Your task to perform on an android device: Go to wifi settings Image 0: 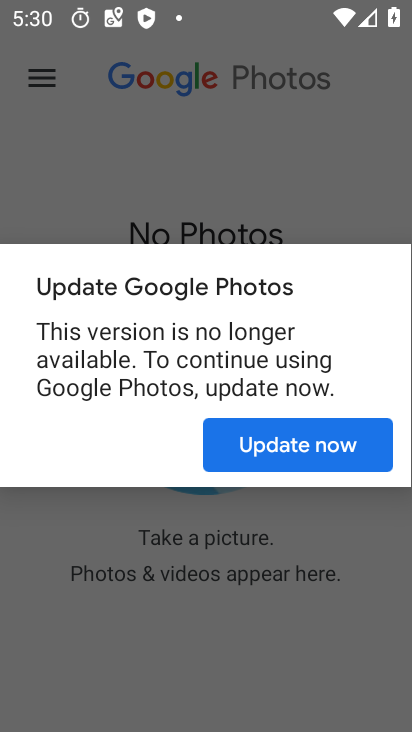
Step 0: press back button
Your task to perform on an android device: Go to wifi settings Image 1: 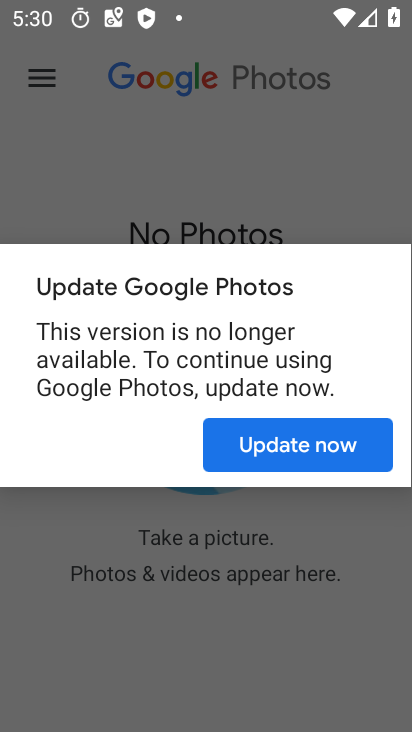
Step 1: press home button
Your task to perform on an android device: Go to wifi settings Image 2: 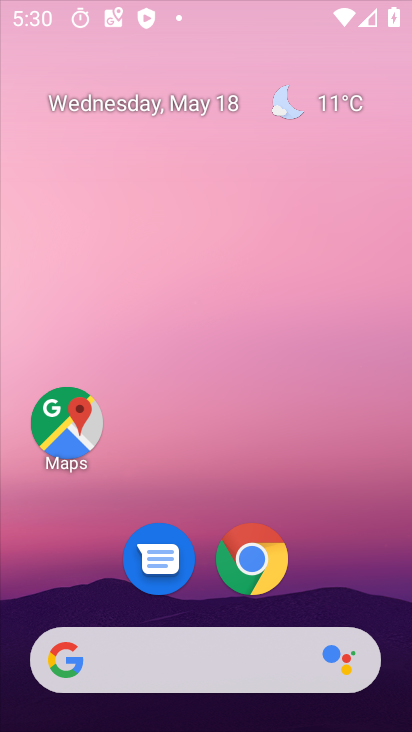
Step 2: drag from (88, 13) to (153, 575)
Your task to perform on an android device: Go to wifi settings Image 3: 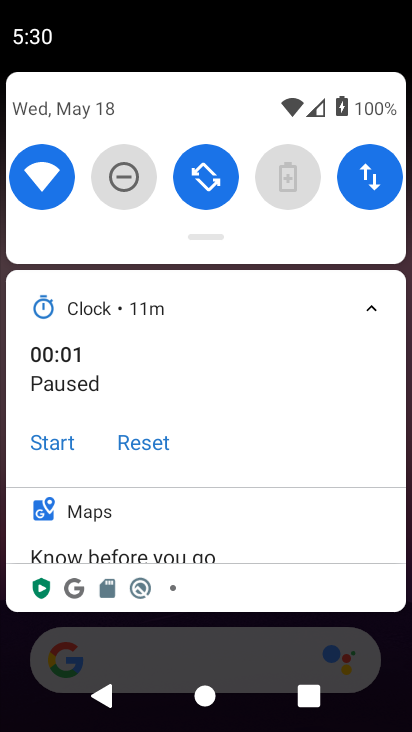
Step 3: click (45, 175)
Your task to perform on an android device: Go to wifi settings Image 4: 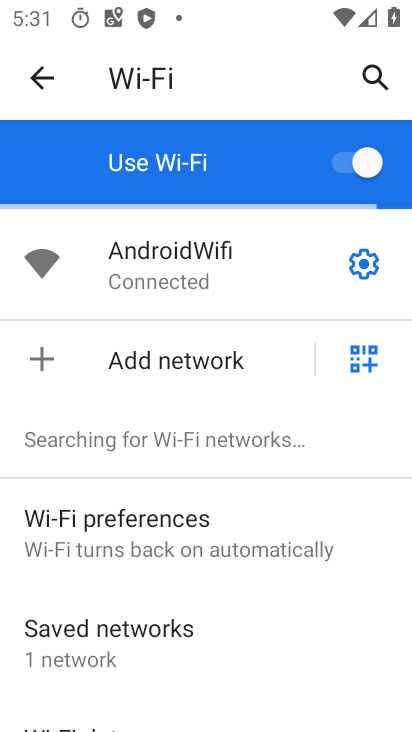
Step 4: task complete